Your task to perform on an android device: turn off wifi Image 0: 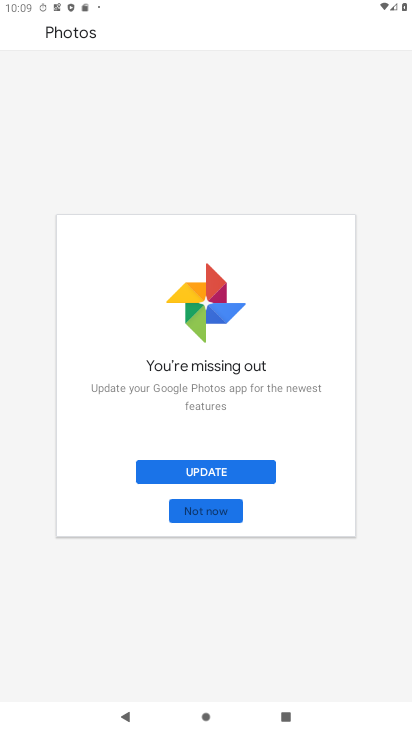
Step 0: press home button
Your task to perform on an android device: turn off wifi Image 1: 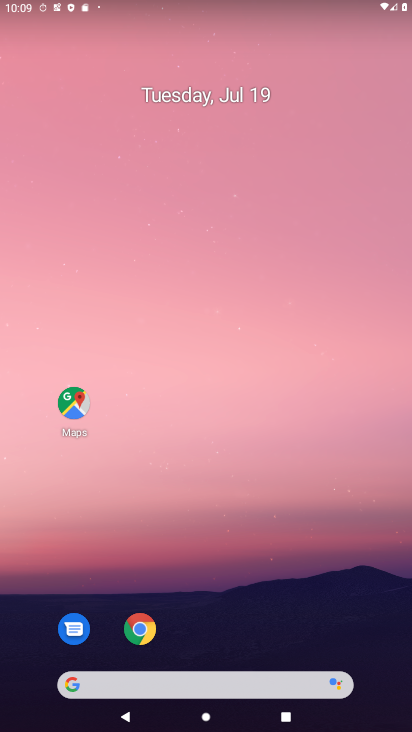
Step 1: drag from (211, 665) to (272, 20)
Your task to perform on an android device: turn off wifi Image 2: 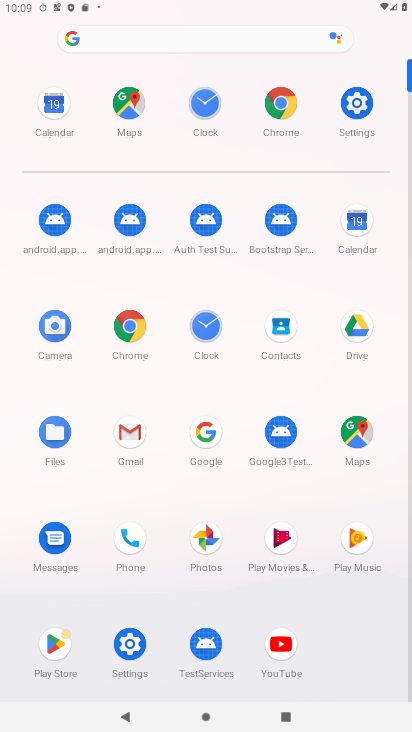
Step 2: click (356, 115)
Your task to perform on an android device: turn off wifi Image 3: 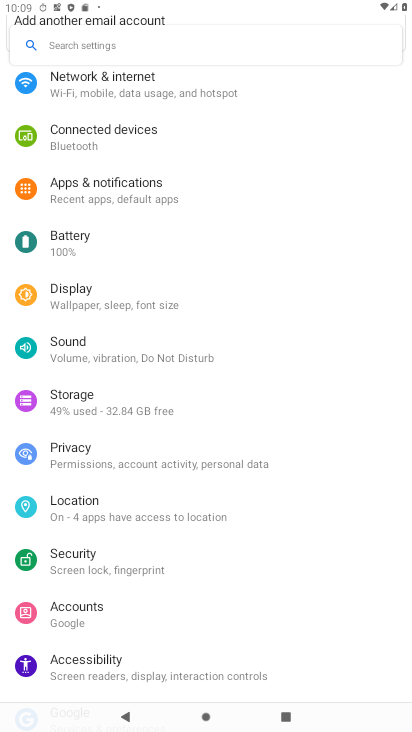
Step 3: click (104, 89)
Your task to perform on an android device: turn off wifi Image 4: 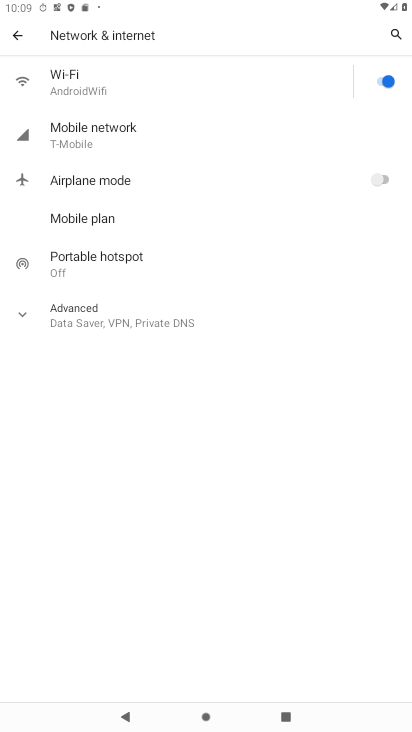
Step 4: click (368, 82)
Your task to perform on an android device: turn off wifi Image 5: 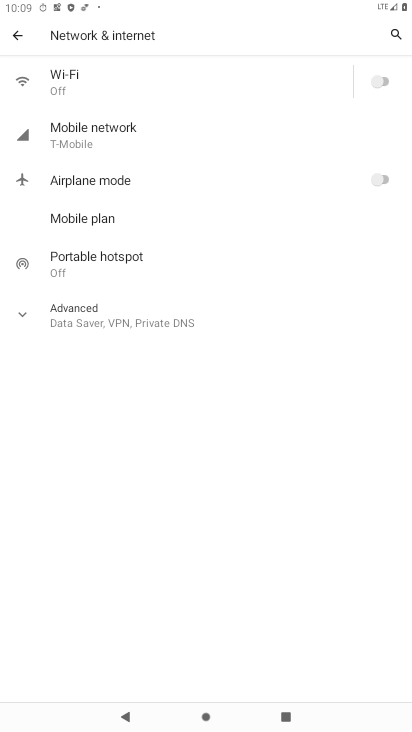
Step 5: task complete